Your task to perform on an android device: toggle notification dots Image 0: 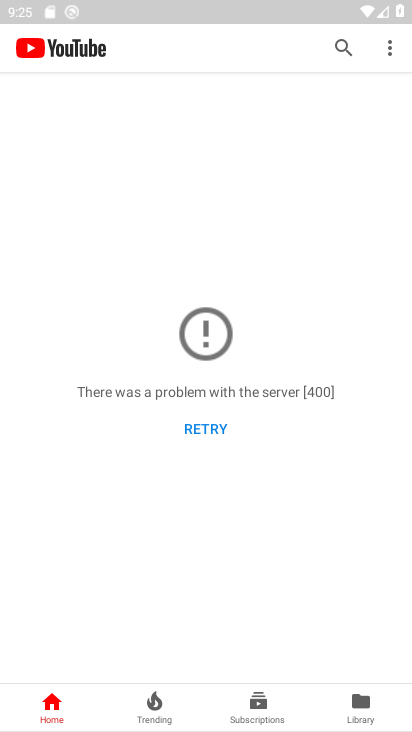
Step 0: press home button
Your task to perform on an android device: toggle notification dots Image 1: 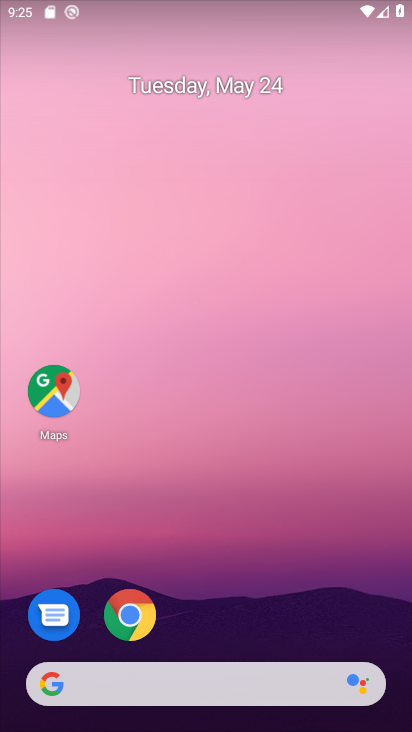
Step 1: drag from (367, 620) to (351, 319)
Your task to perform on an android device: toggle notification dots Image 2: 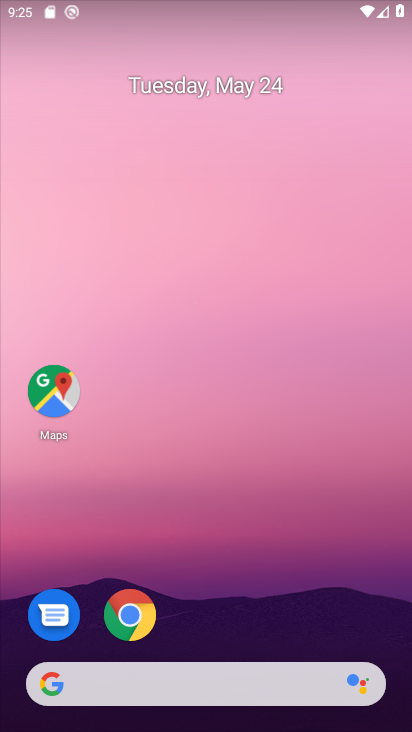
Step 2: drag from (355, 635) to (346, 249)
Your task to perform on an android device: toggle notification dots Image 3: 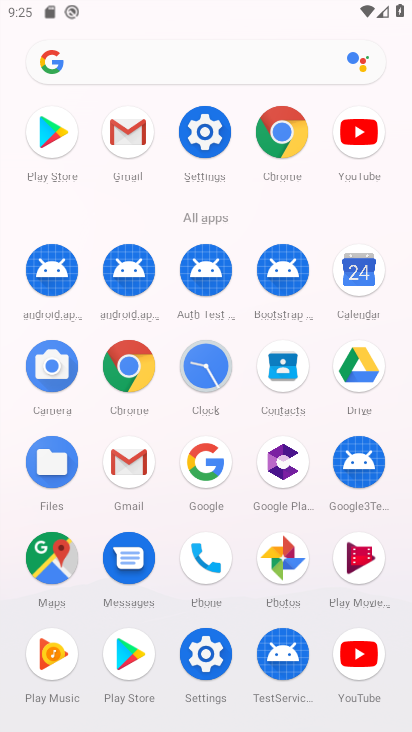
Step 3: click (205, 654)
Your task to perform on an android device: toggle notification dots Image 4: 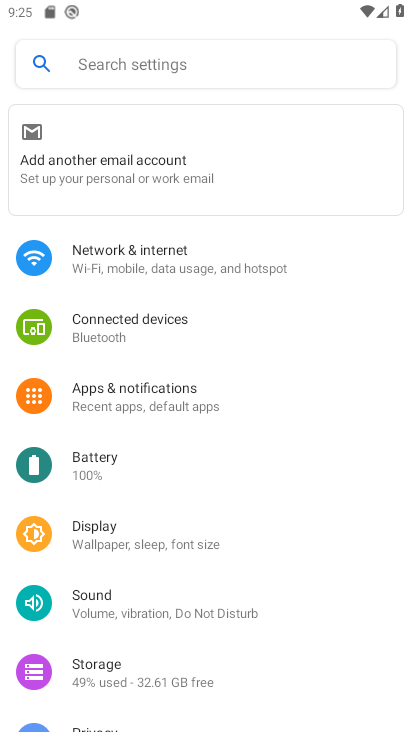
Step 4: drag from (332, 609) to (339, 491)
Your task to perform on an android device: toggle notification dots Image 5: 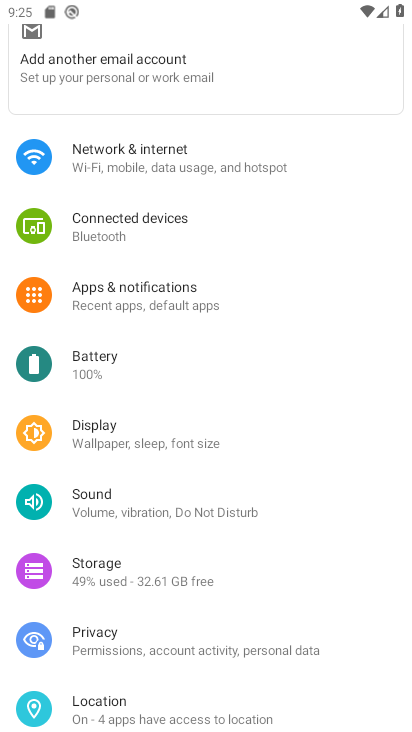
Step 5: drag from (357, 621) to (339, 478)
Your task to perform on an android device: toggle notification dots Image 6: 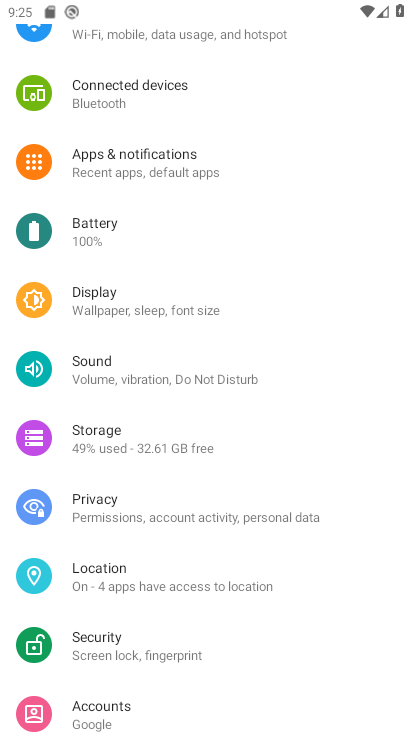
Step 6: drag from (351, 626) to (346, 484)
Your task to perform on an android device: toggle notification dots Image 7: 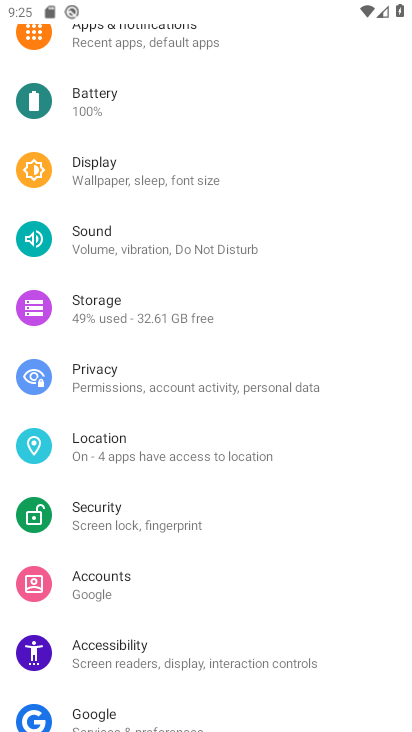
Step 7: drag from (343, 651) to (331, 498)
Your task to perform on an android device: toggle notification dots Image 8: 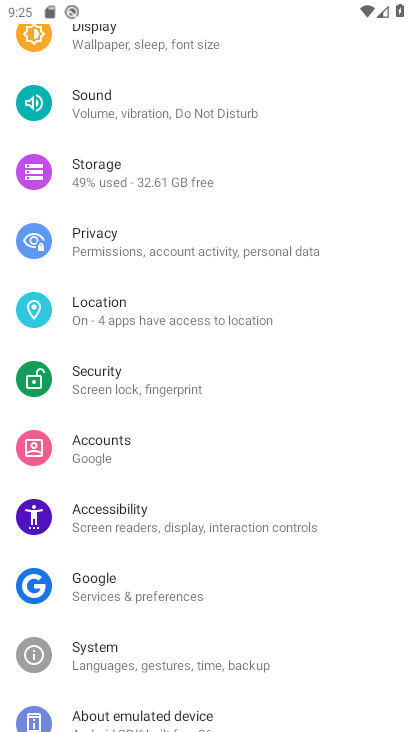
Step 8: drag from (335, 650) to (335, 534)
Your task to perform on an android device: toggle notification dots Image 9: 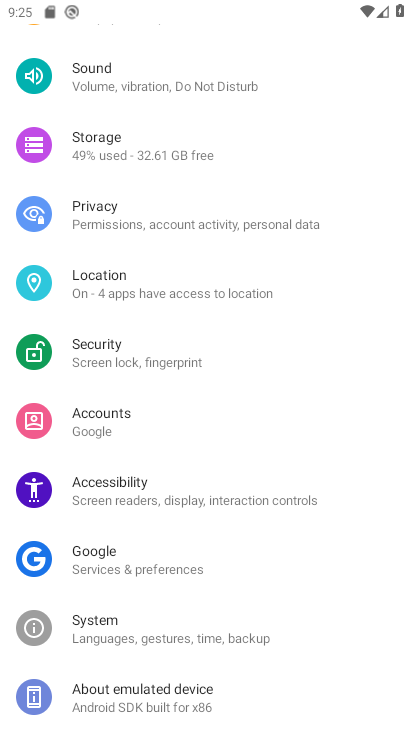
Step 9: drag from (349, 428) to (352, 544)
Your task to perform on an android device: toggle notification dots Image 10: 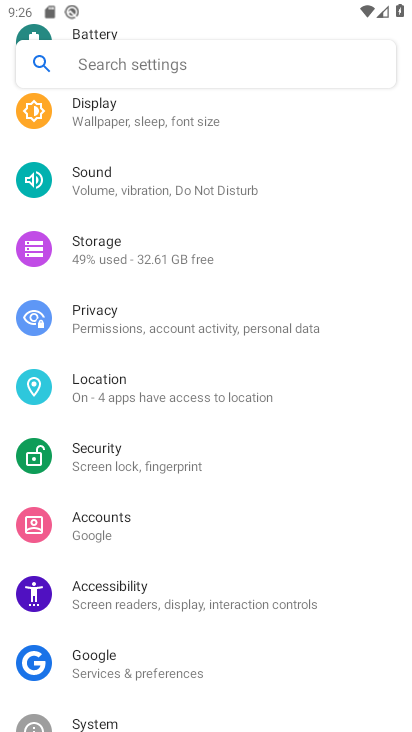
Step 10: drag from (346, 369) to (346, 508)
Your task to perform on an android device: toggle notification dots Image 11: 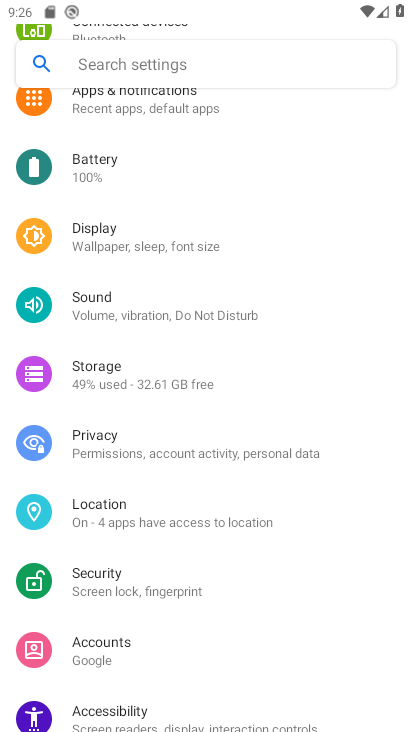
Step 11: drag from (336, 347) to (331, 501)
Your task to perform on an android device: toggle notification dots Image 12: 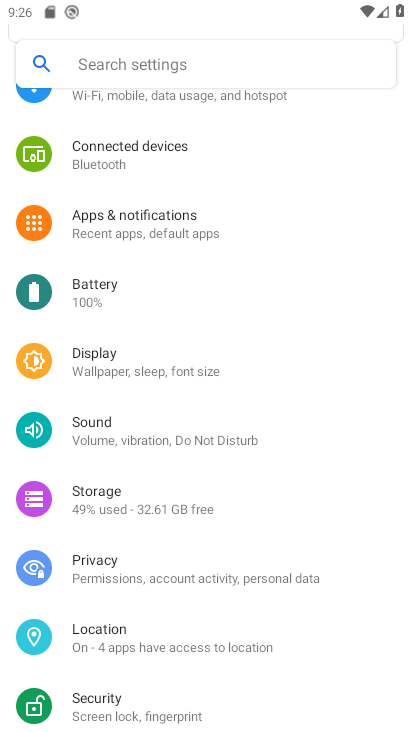
Step 12: drag from (341, 335) to (341, 429)
Your task to perform on an android device: toggle notification dots Image 13: 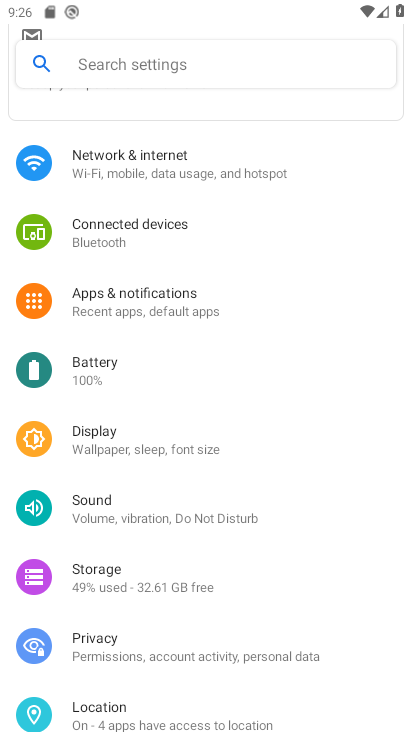
Step 13: drag from (339, 307) to (333, 417)
Your task to perform on an android device: toggle notification dots Image 14: 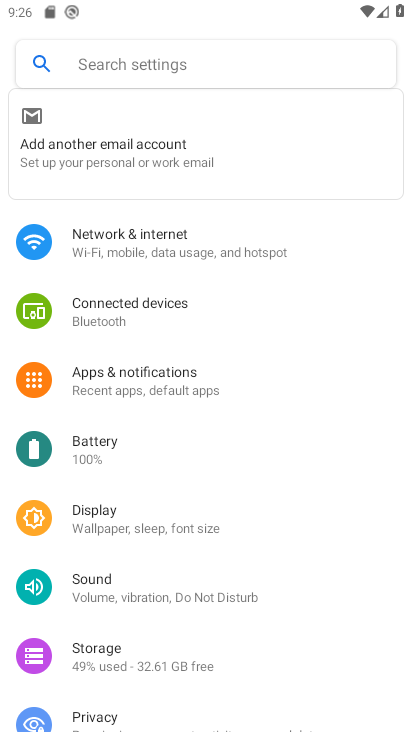
Step 14: drag from (334, 335) to (332, 451)
Your task to perform on an android device: toggle notification dots Image 15: 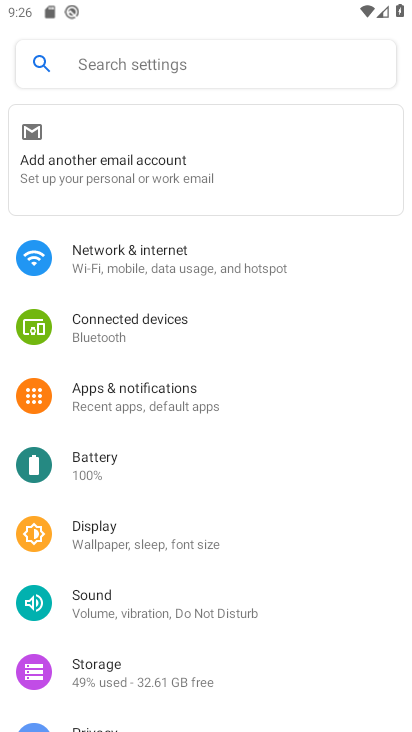
Step 15: click (180, 398)
Your task to perform on an android device: toggle notification dots Image 16: 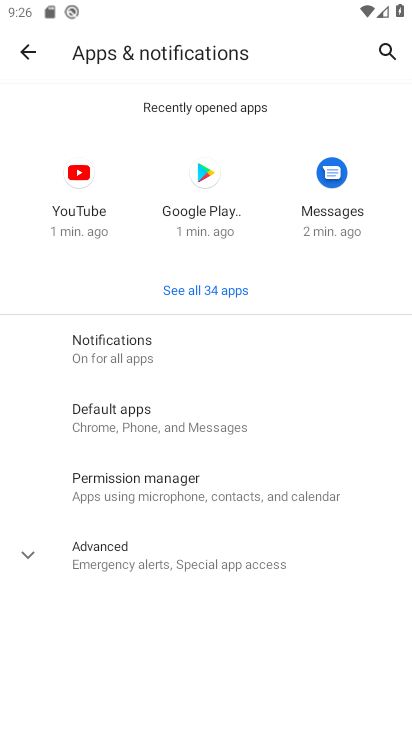
Step 16: click (122, 358)
Your task to perform on an android device: toggle notification dots Image 17: 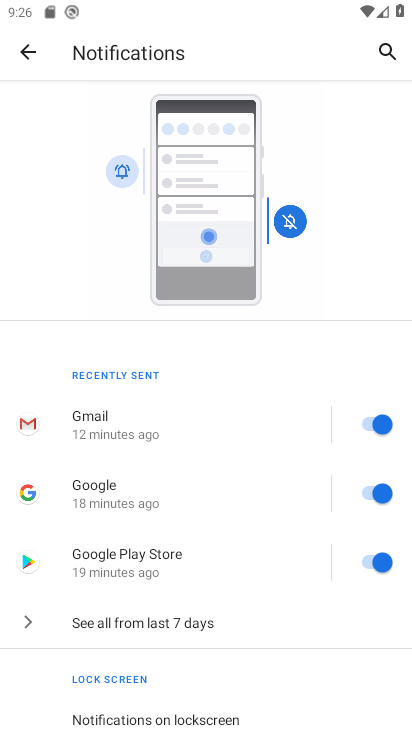
Step 17: drag from (286, 591) to (278, 409)
Your task to perform on an android device: toggle notification dots Image 18: 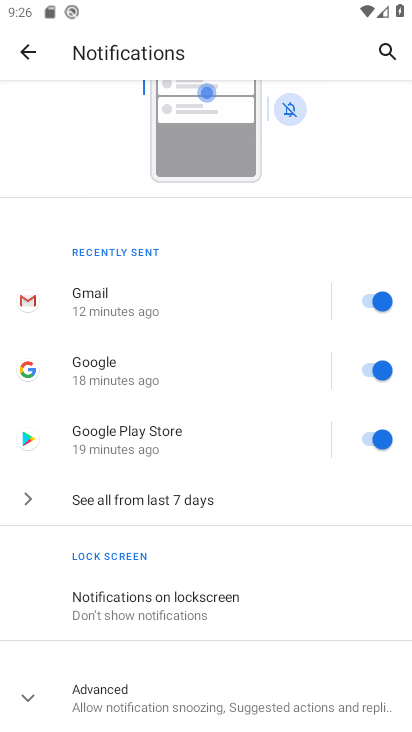
Step 18: drag from (276, 606) to (284, 436)
Your task to perform on an android device: toggle notification dots Image 19: 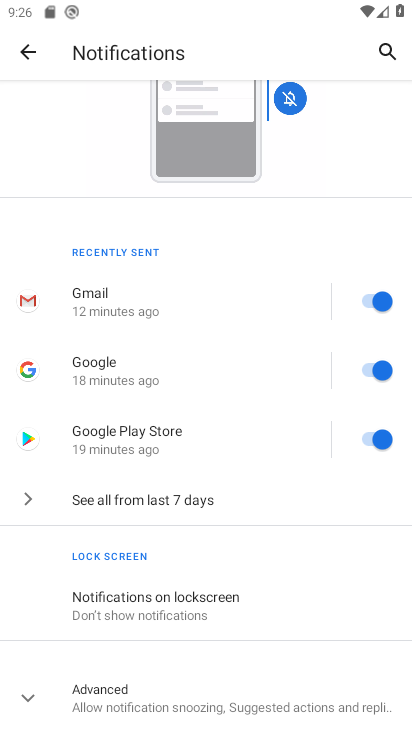
Step 19: click (286, 699)
Your task to perform on an android device: toggle notification dots Image 20: 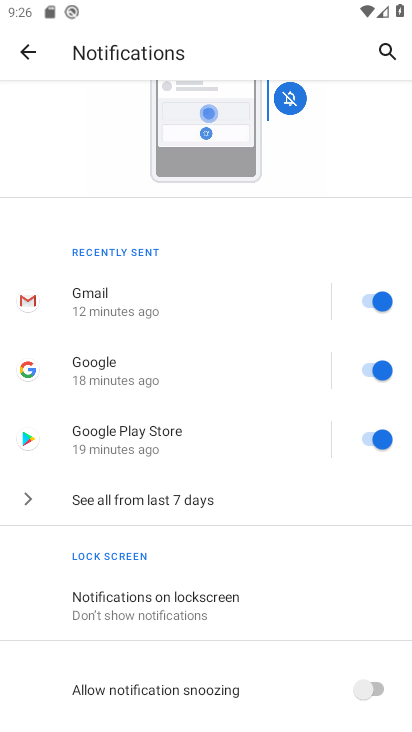
Step 20: drag from (285, 686) to (290, 520)
Your task to perform on an android device: toggle notification dots Image 21: 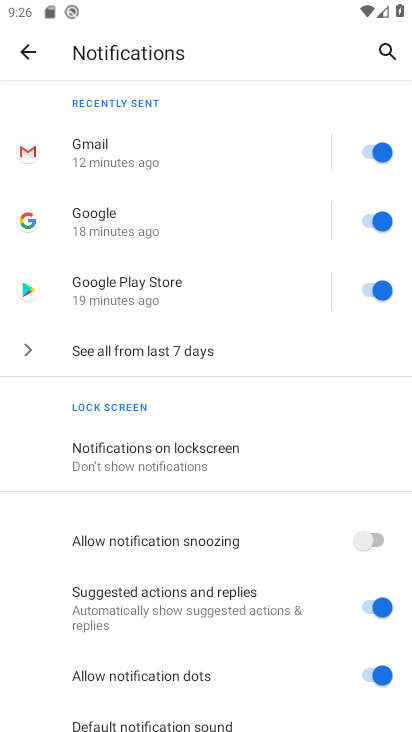
Step 21: drag from (276, 670) to (276, 496)
Your task to perform on an android device: toggle notification dots Image 22: 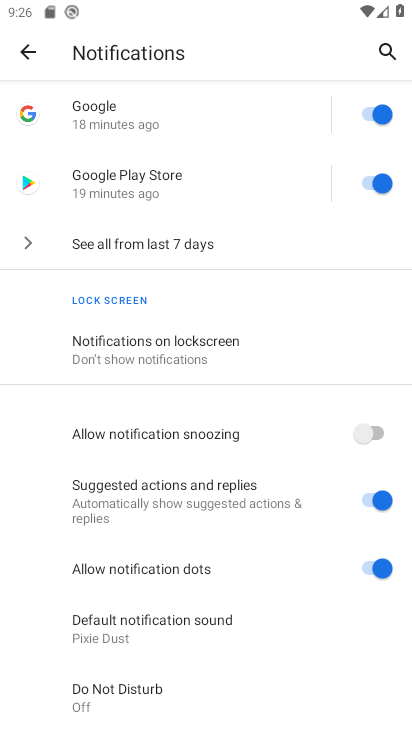
Step 22: click (364, 562)
Your task to perform on an android device: toggle notification dots Image 23: 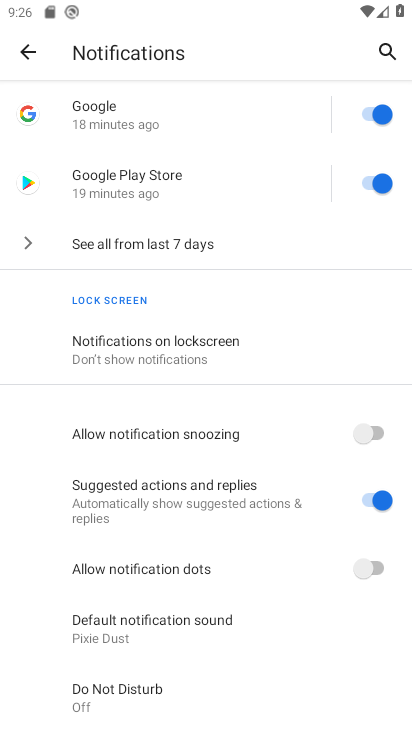
Step 23: task complete